Your task to perform on an android device: Show me popular videos on Youtube Image 0: 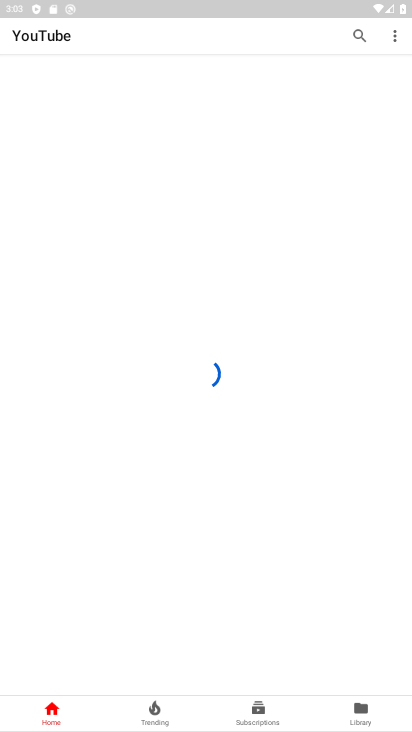
Step 0: drag from (14, 694) to (114, 325)
Your task to perform on an android device: Show me popular videos on Youtube Image 1: 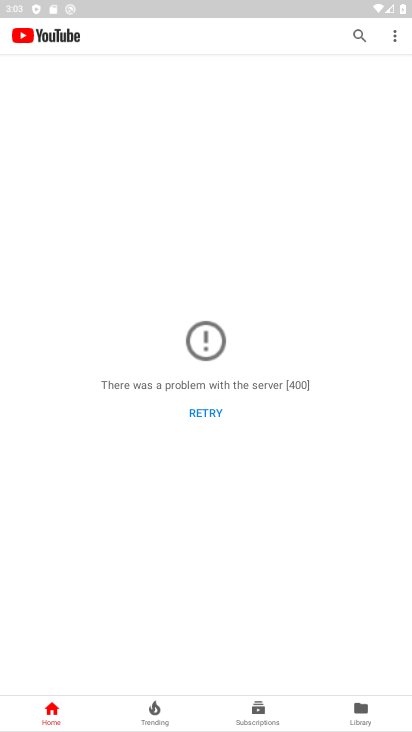
Step 1: press home button
Your task to perform on an android device: Show me popular videos on Youtube Image 2: 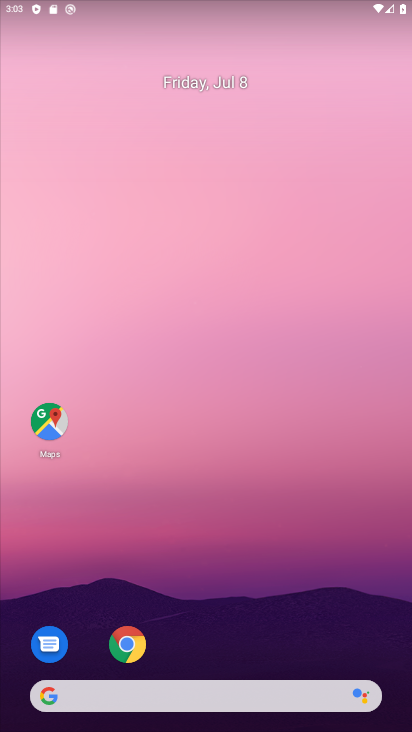
Step 2: drag from (15, 708) to (309, 152)
Your task to perform on an android device: Show me popular videos on Youtube Image 3: 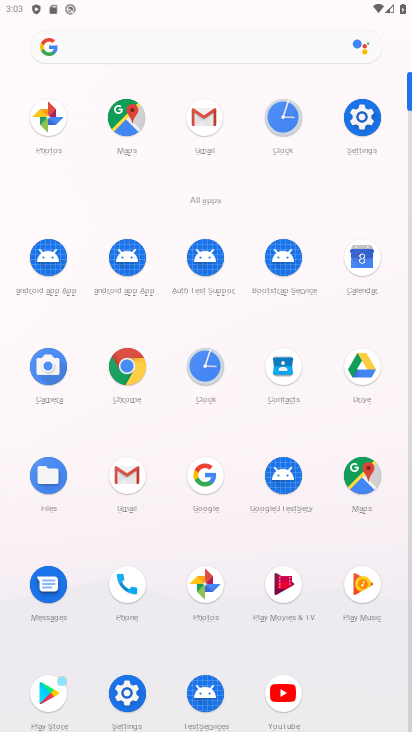
Step 3: click (286, 696)
Your task to perform on an android device: Show me popular videos on Youtube Image 4: 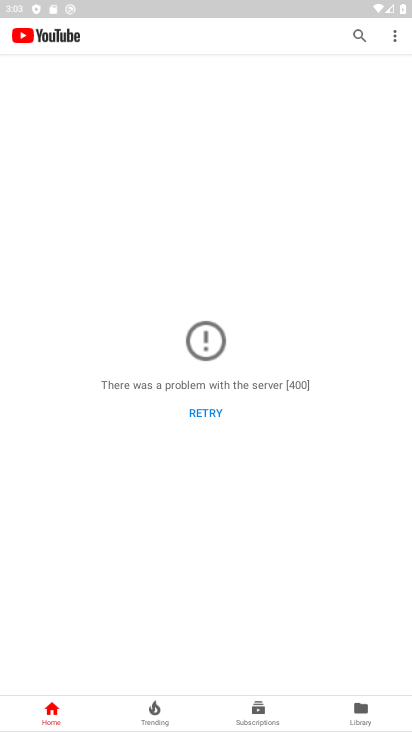
Step 4: click (165, 41)
Your task to perform on an android device: Show me popular videos on Youtube Image 5: 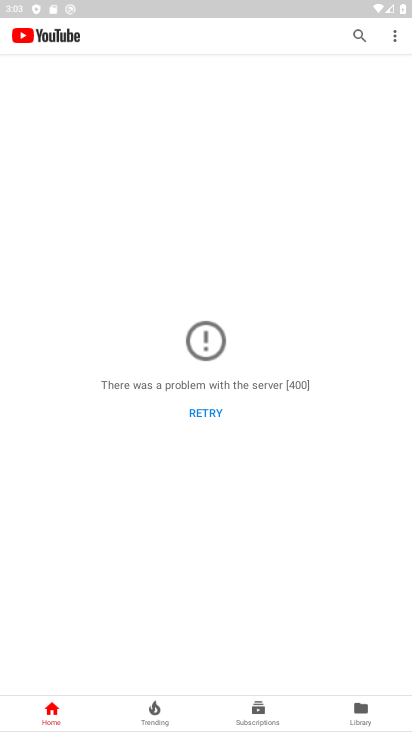
Step 5: click (225, 408)
Your task to perform on an android device: Show me popular videos on Youtube Image 6: 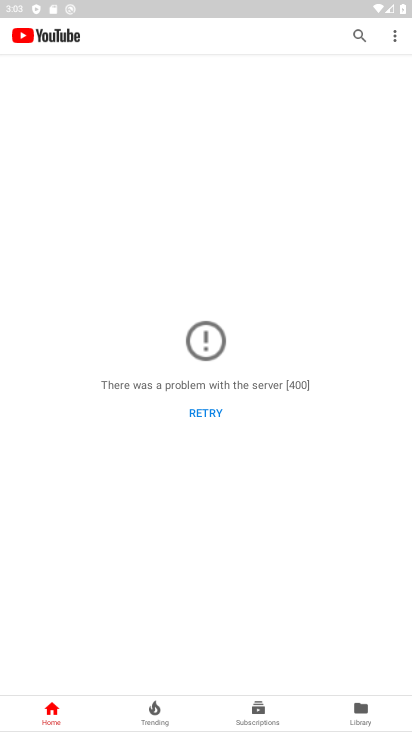
Step 6: task complete